Your task to perform on an android device: turn on the 24-hour format for clock Image 0: 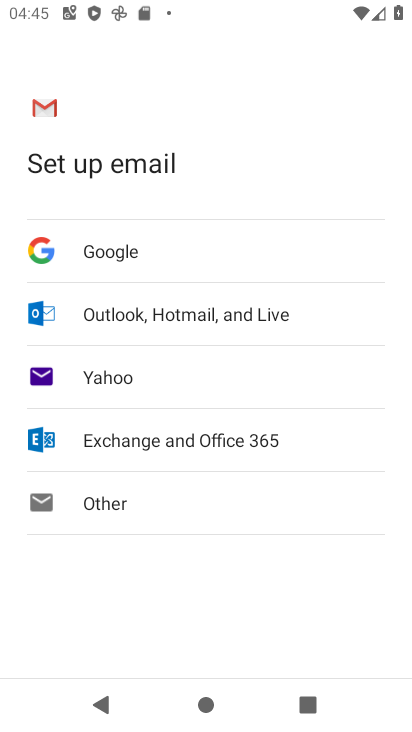
Step 0: press home button
Your task to perform on an android device: turn on the 24-hour format for clock Image 1: 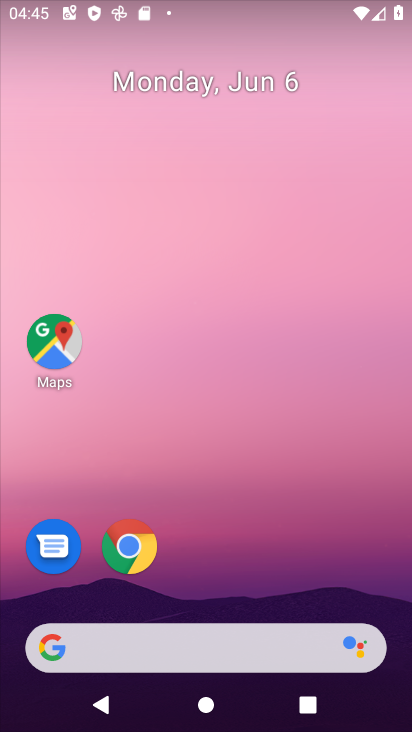
Step 1: drag from (297, 584) to (273, 279)
Your task to perform on an android device: turn on the 24-hour format for clock Image 2: 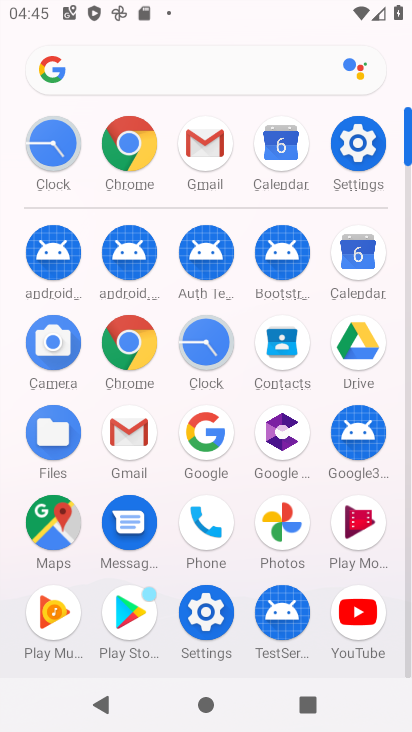
Step 2: click (222, 337)
Your task to perform on an android device: turn on the 24-hour format for clock Image 3: 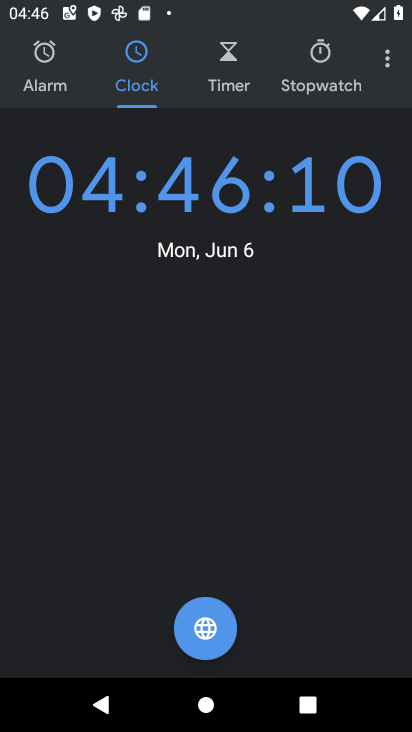
Step 3: click (394, 47)
Your task to perform on an android device: turn on the 24-hour format for clock Image 4: 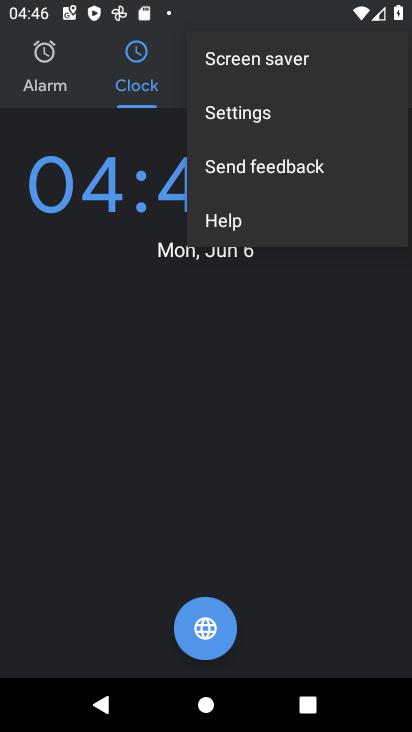
Step 4: click (284, 121)
Your task to perform on an android device: turn on the 24-hour format for clock Image 5: 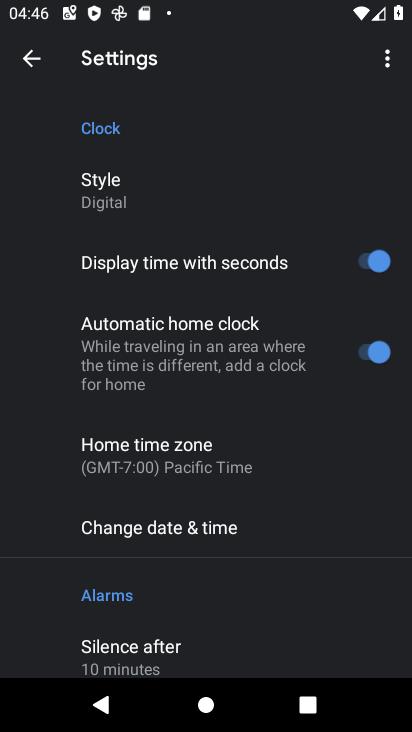
Step 5: click (273, 514)
Your task to perform on an android device: turn on the 24-hour format for clock Image 6: 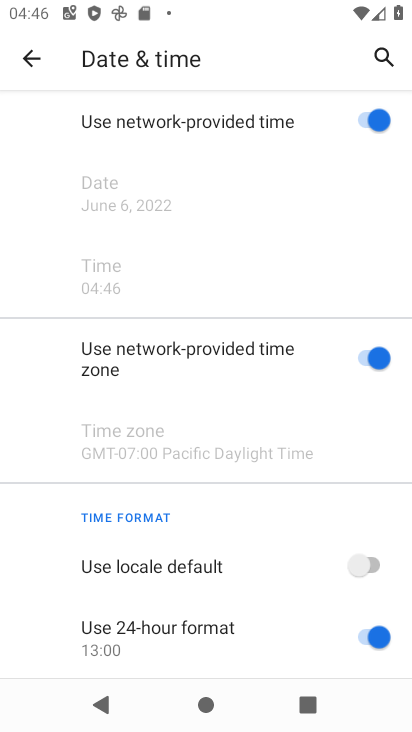
Step 6: click (345, 631)
Your task to perform on an android device: turn on the 24-hour format for clock Image 7: 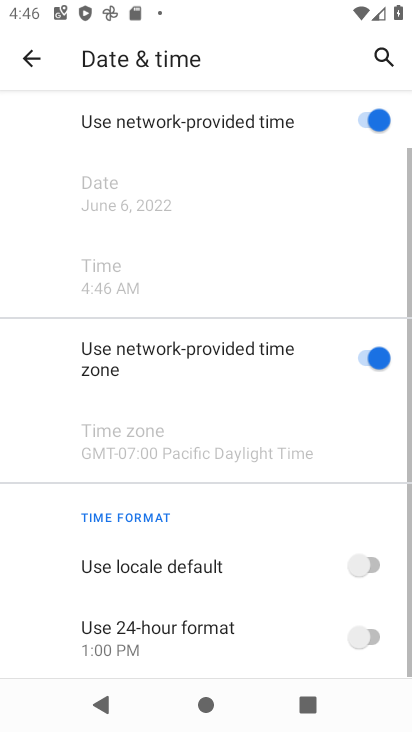
Step 7: click (345, 631)
Your task to perform on an android device: turn on the 24-hour format for clock Image 8: 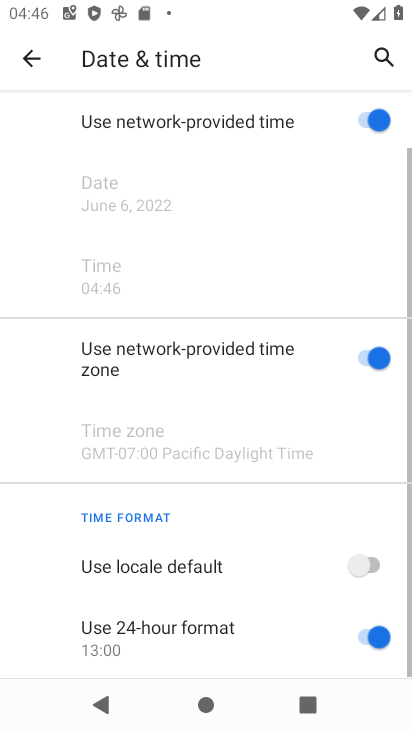
Step 8: task complete